Your task to perform on an android device: check google app version Image 0: 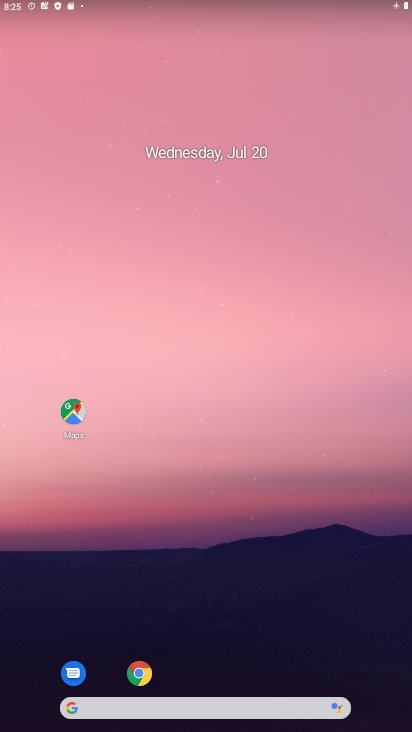
Step 0: drag from (365, 639) to (143, 20)
Your task to perform on an android device: check google app version Image 1: 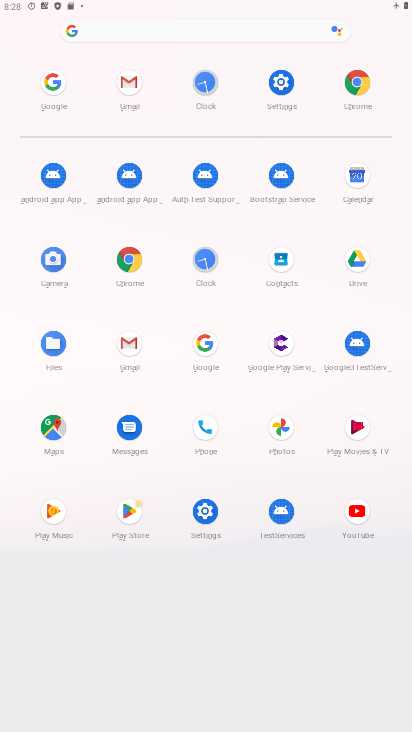
Step 1: click (194, 346)
Your task to perform on an android device: check google app version Image 2: 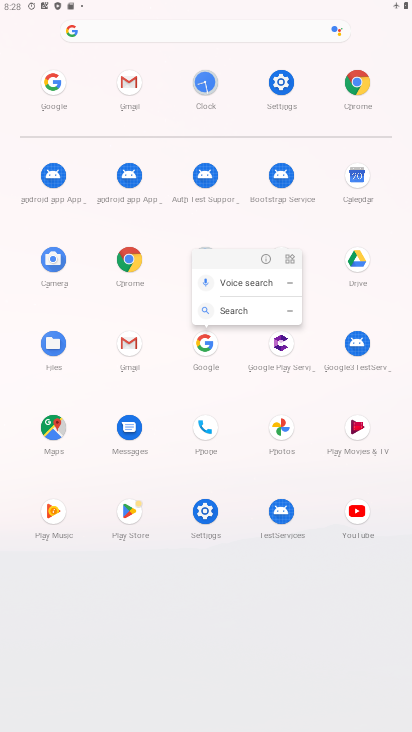
Step 2: click (263, 257)
Your task to perform on an android device: check google app version Image 3: 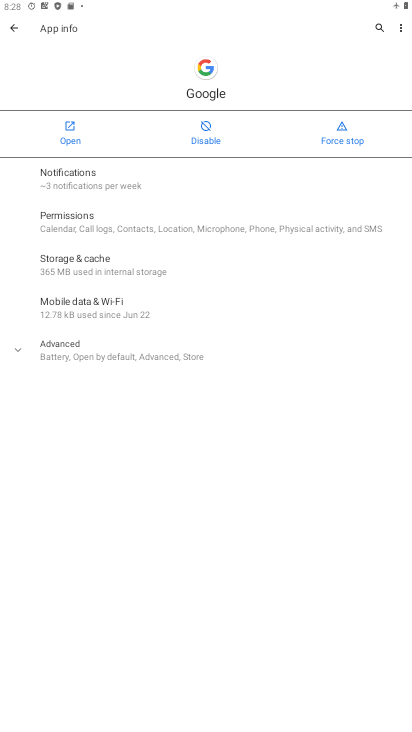
Step 3: click (93, 356)
Your task to perform on an android device: check google app version Image 4: 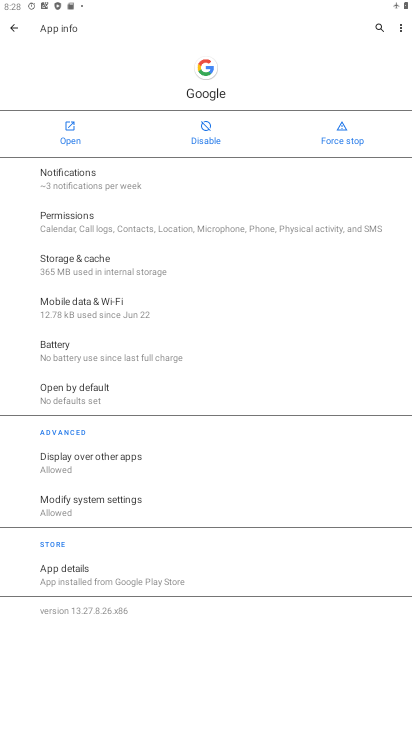
Step 4: task complete